Your task to perform on an android device: Open calendar and show me the first week of next month Image 0: 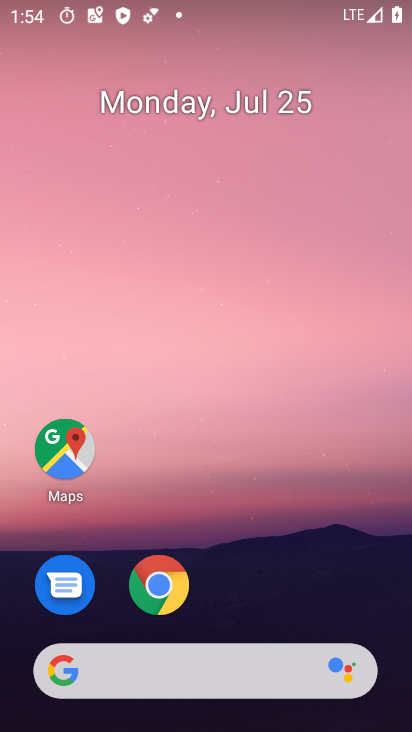
Step 0: drag from (215, 663) to (168, 110)
Your task to perform on an android device: Open calendar and show me the first week of next month Image 1: 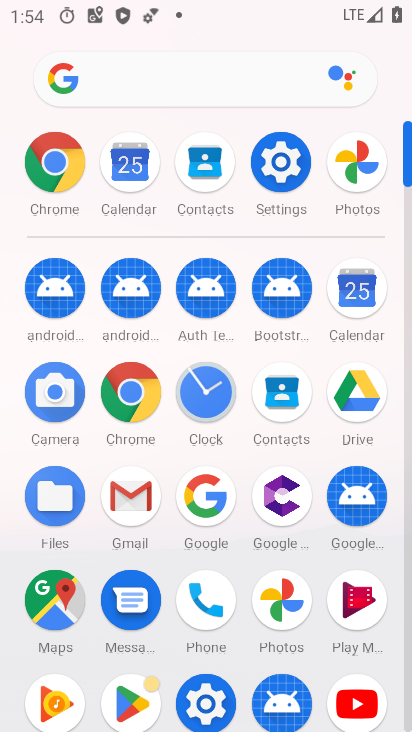
Step 1: click (337, 289)
Your task to perform on an android device: Open calendar and show me the first week of next month Image 2: 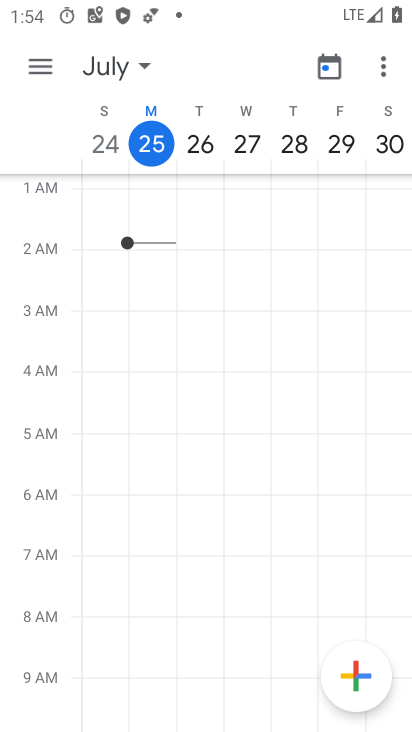
Step 2: click (29, 55)
Your task to perform on an android device: Open calendar and show me the first week of next month Image 3: 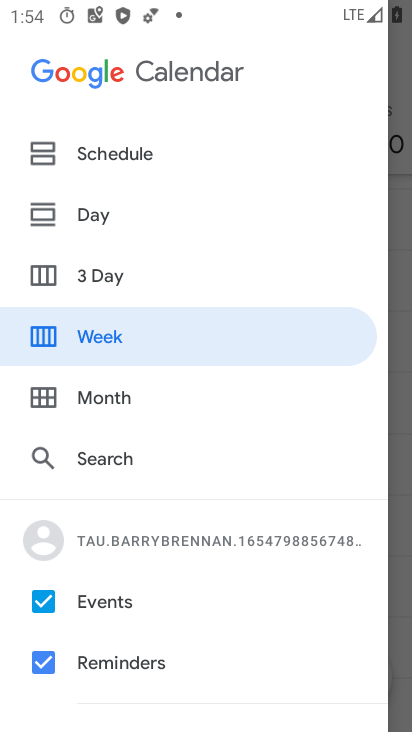
Step 3: click (90, 397)
Your task to perform on an android device: Open calendar and show me the first week of next month Image 4: 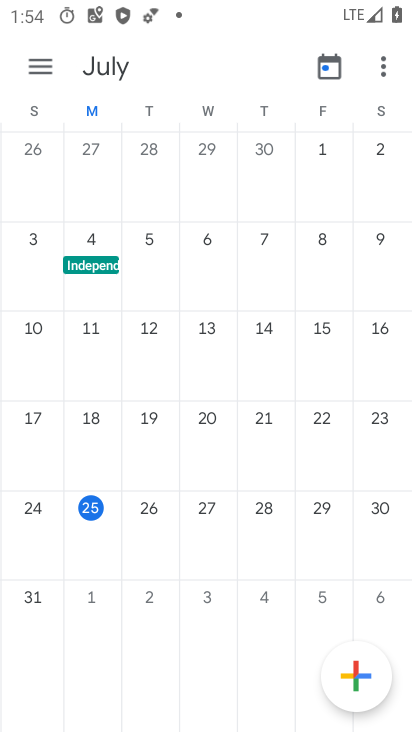
Step 4: task complete